Your task to perform on an android device: Open Maps and search for coffee Image 0: 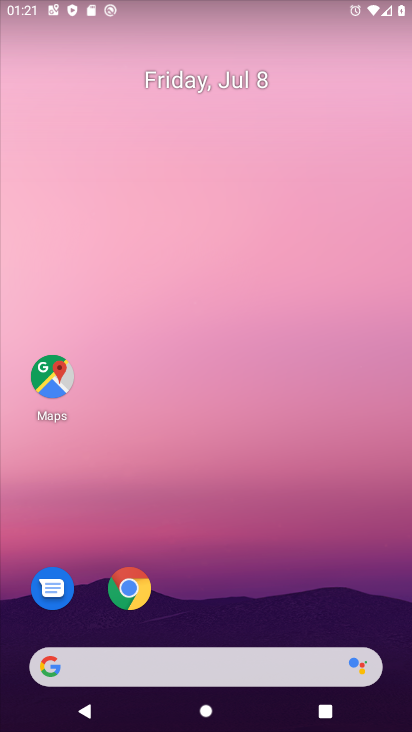
Step 0: drag from (262, 644) to (254, 209)
Your task to perform on an android device: Open Maps and search for coffee Image 1: 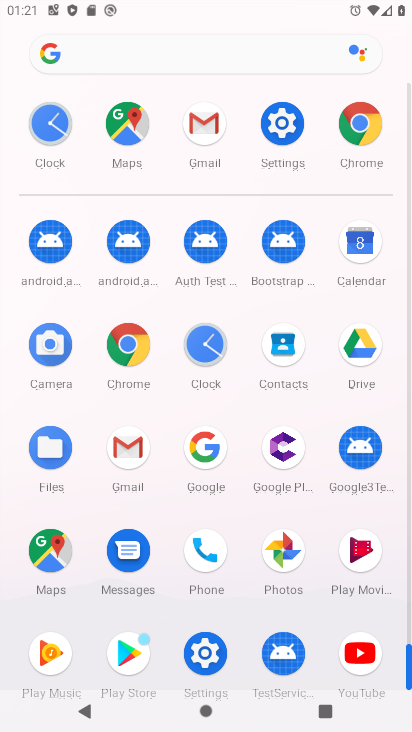
Step 1: click (50, 561)
Your task to perform on an android device: Open Maps and search for coffee Image 2: 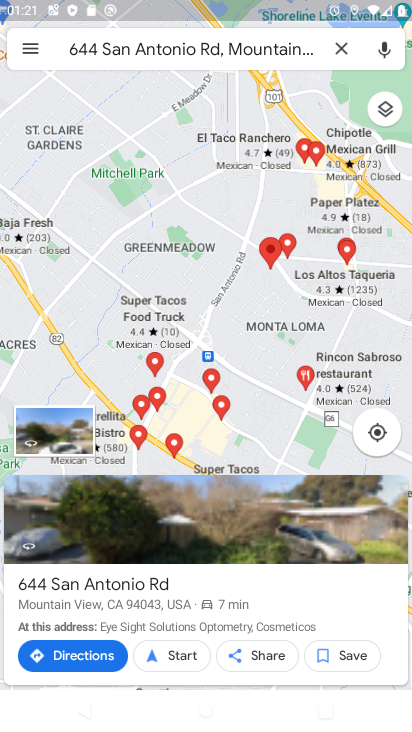
Step 2: click (342, 46)
Your task to perform on an android device: Open Maps and search for coffee Image 3: 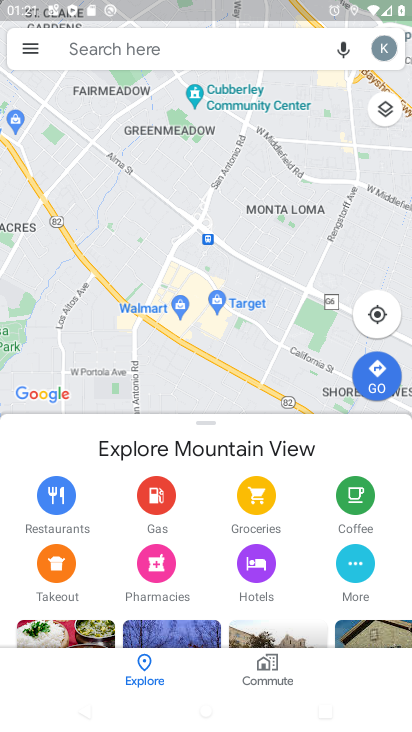
Step 3: click (208, 41)
Your task to perform on an android device: Open Maps and search for coffee Image 4: 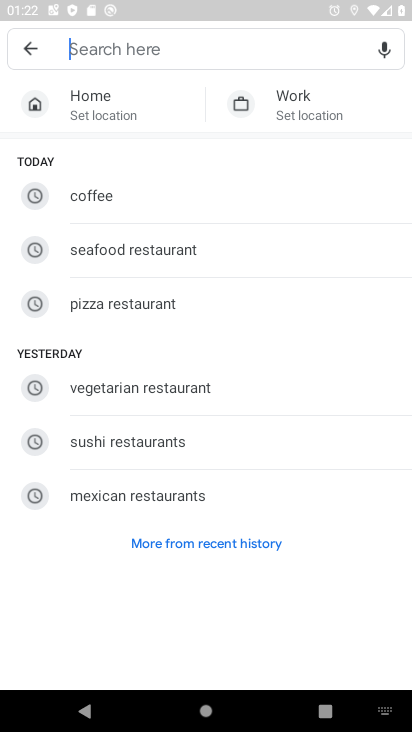
Step 4: click (135, 174)
Your task to perform on an android device: Open Maps and search for coffee Image 5: 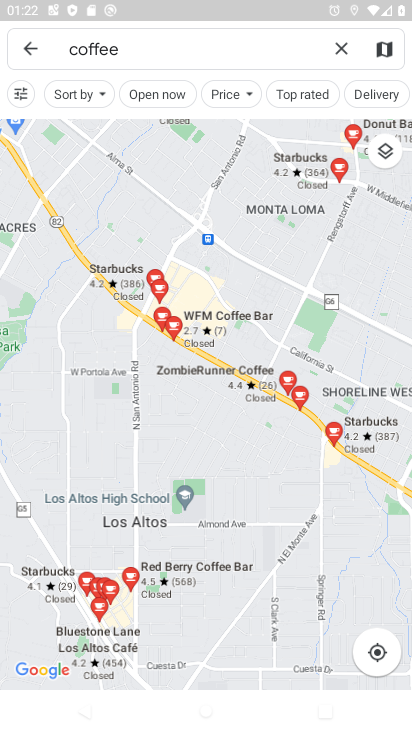
Step 5: task complete